Your task to perform on an android device: open app "Fetch Rewards" (install if not already installed) and go to login screen Image 0: 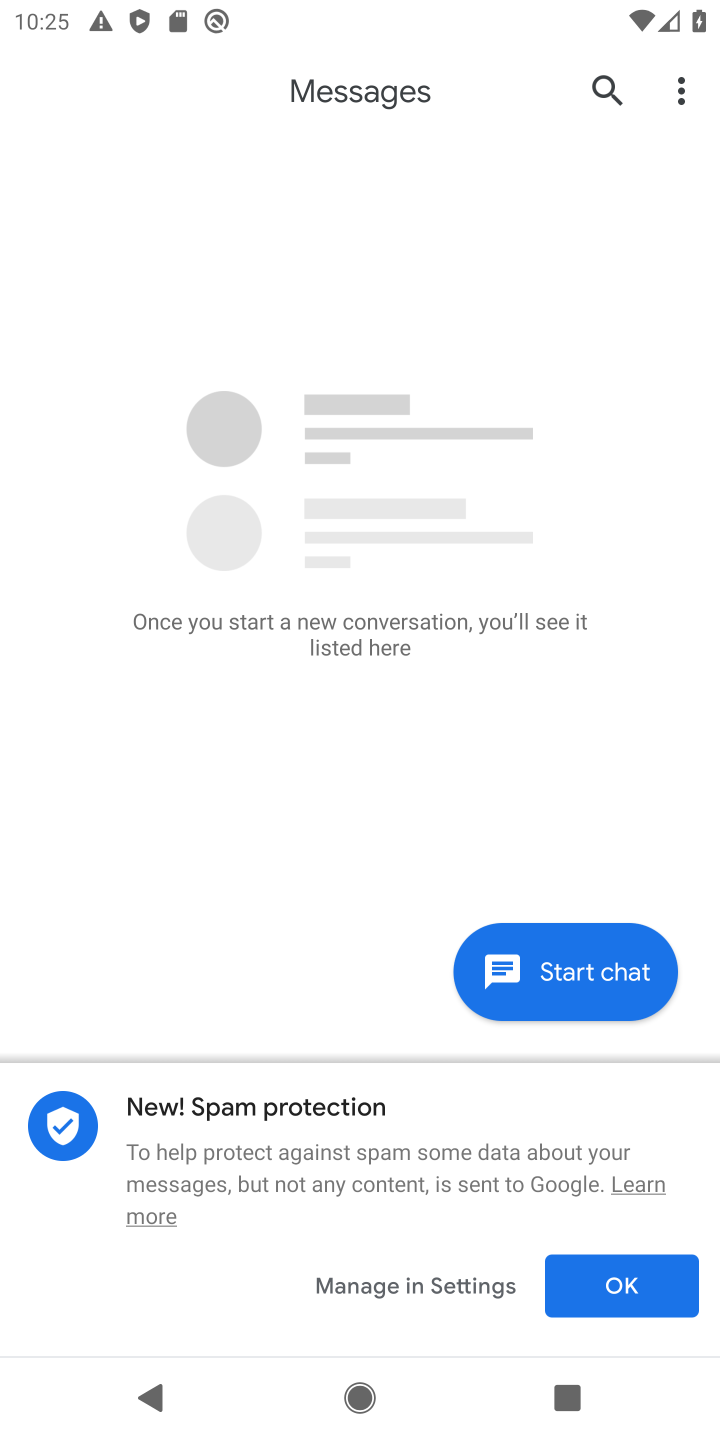
Step 0: press home button
Your task to perform on an android device: open app "Fetch Rewards" (install if not already installed) and go to login screen Image 1: 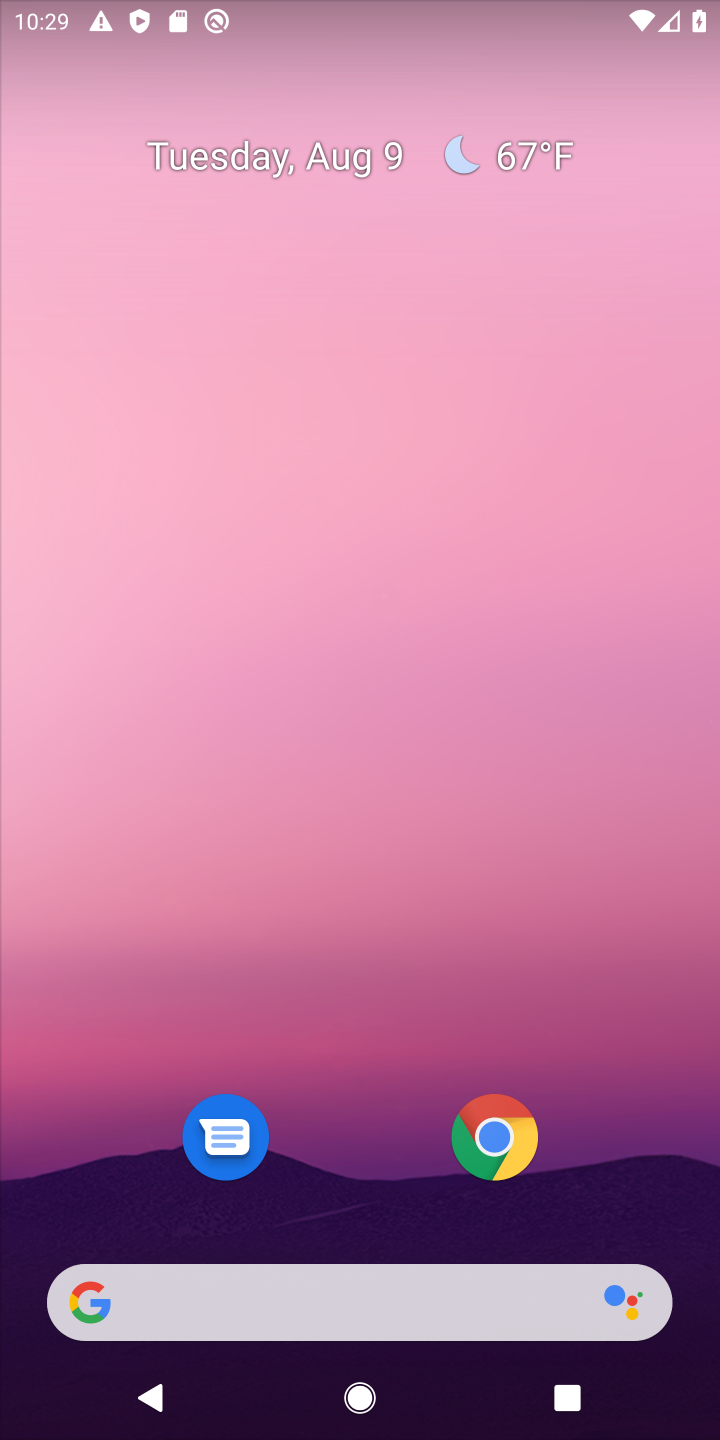
Step 1: drag from (672, 1194) to (584, 11)
Your task to perform on an android device: open app "Fetch Rewards" (install if not already installed) and go to login screen Image 2: 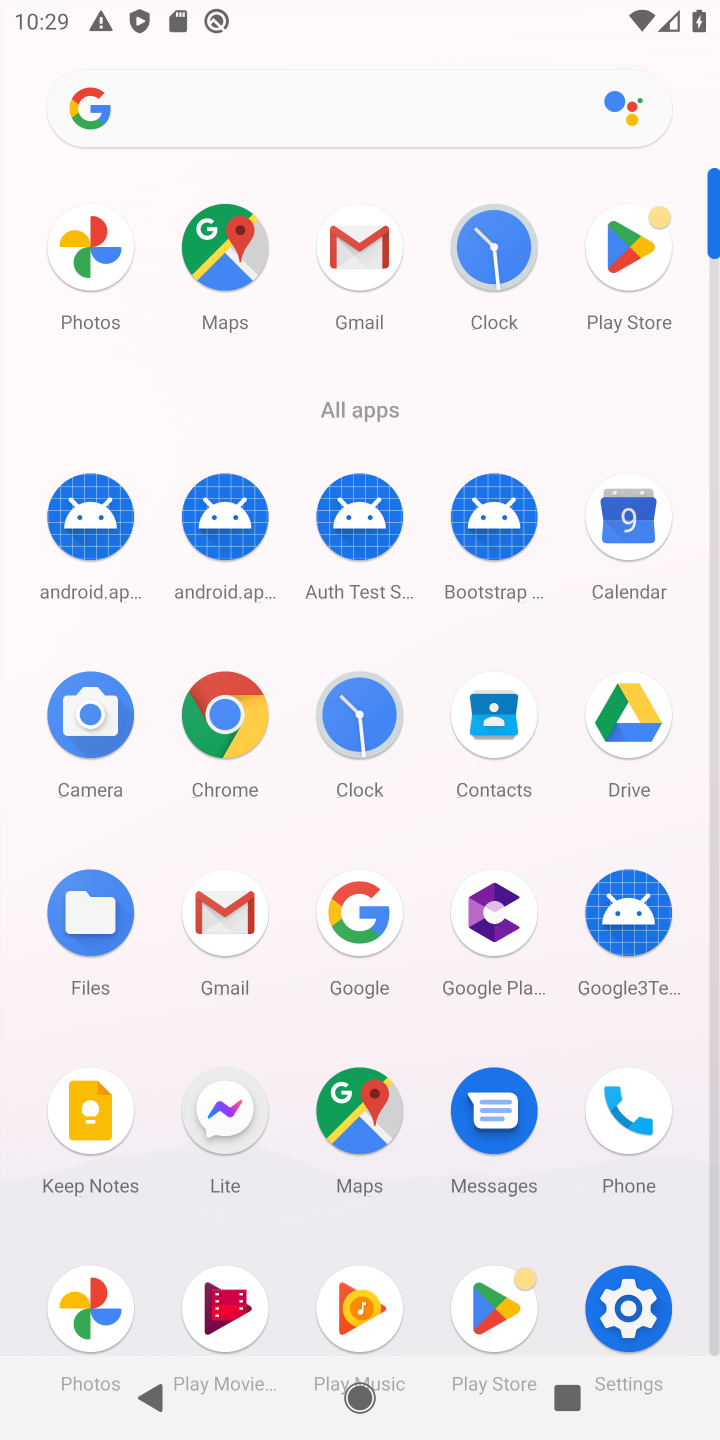
Step 2: click (618, 266)
Your task to perform on an android device: open app "Fetch Rewards" (install if not already installed) and go to login screen Image 3: 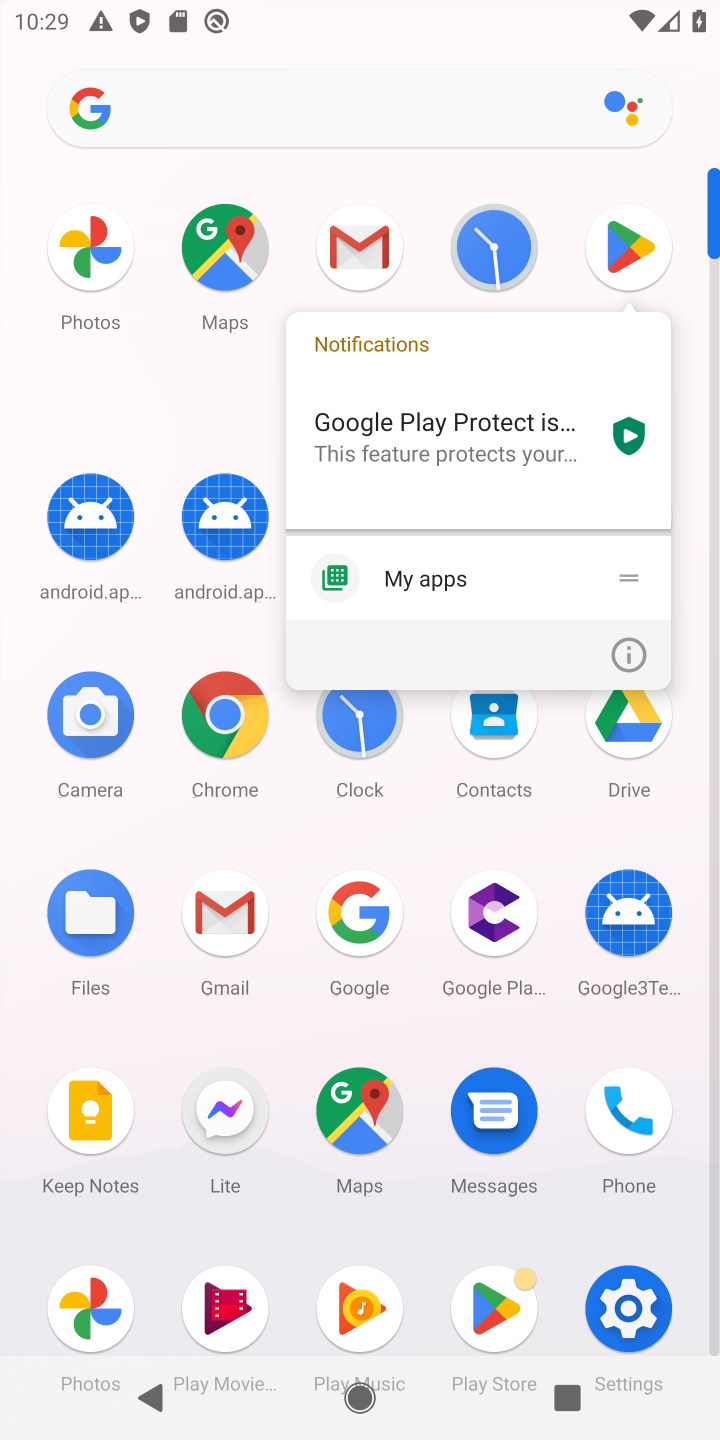
Step 3: click (618, 266)
Your task to perform on an android device: open app "Fetch Rewards" (install if not already installed) and go to login screen Image 4: 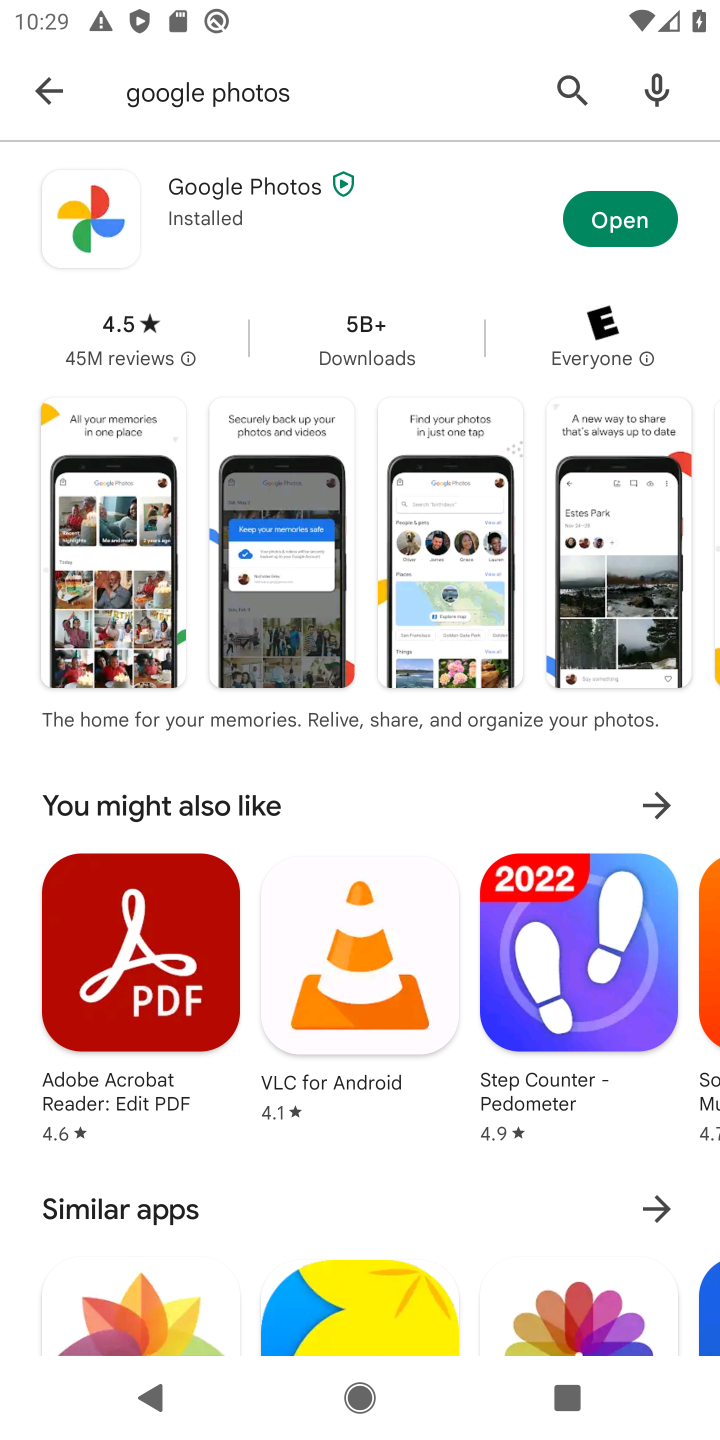
Step 4: press back button
Your task to perform on an android device: open app "Fetch Rewards" (install if not already installed) and go to login screen Image 5: 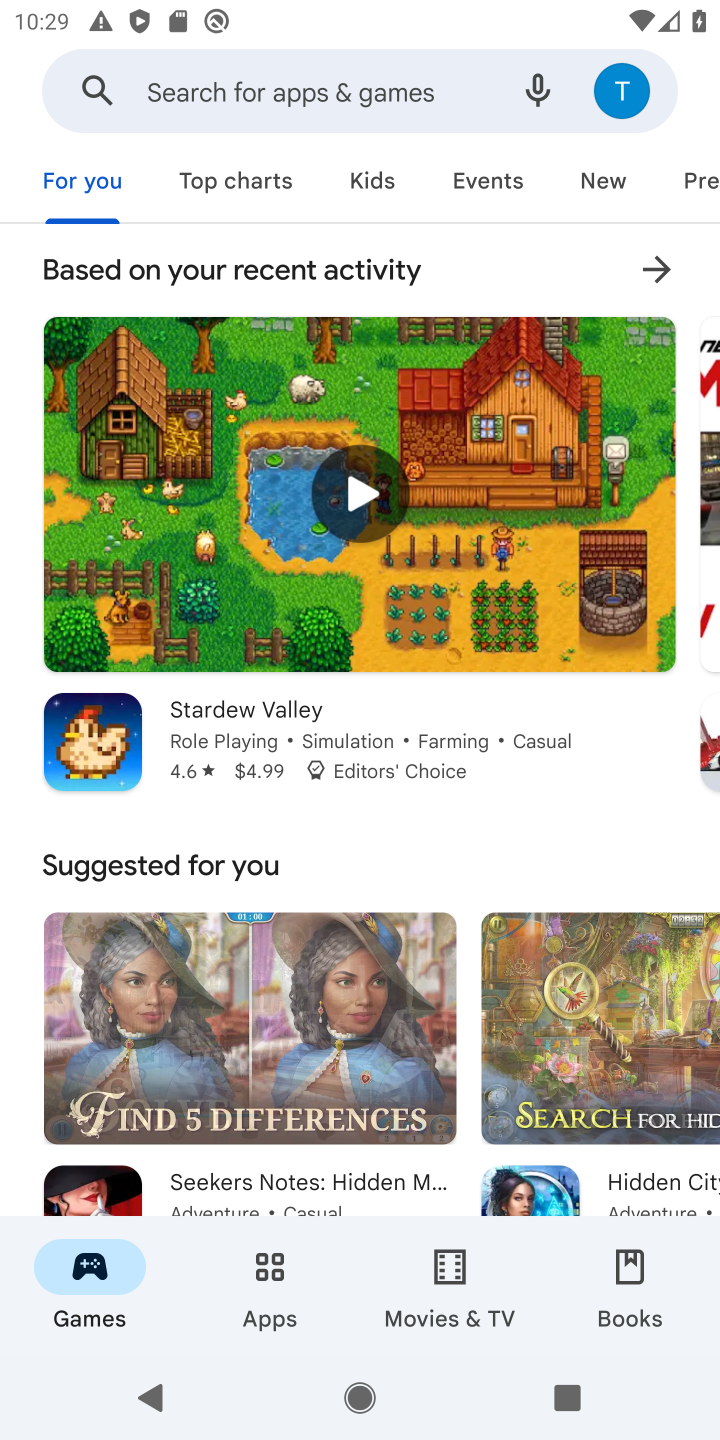
Step 5: click (272, 68)
Your task to perform on an android device: open app "Fetch Rewards" (install if not already installed) and go to login screen Image 6: 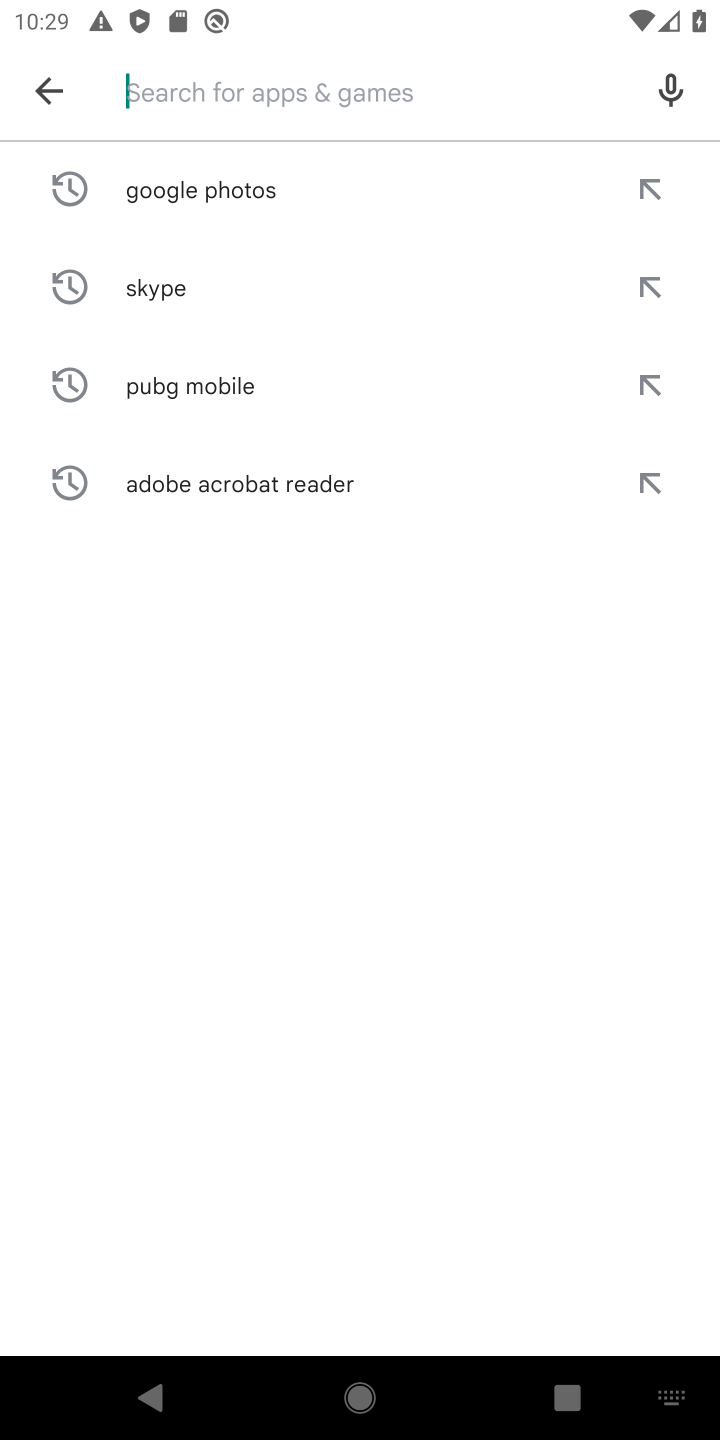
Step 6: type "Fetch Rewards"
Your task to perform on an android device: open app "Fetch Rewards" (install if not already installed) and go to login screen Image 7: 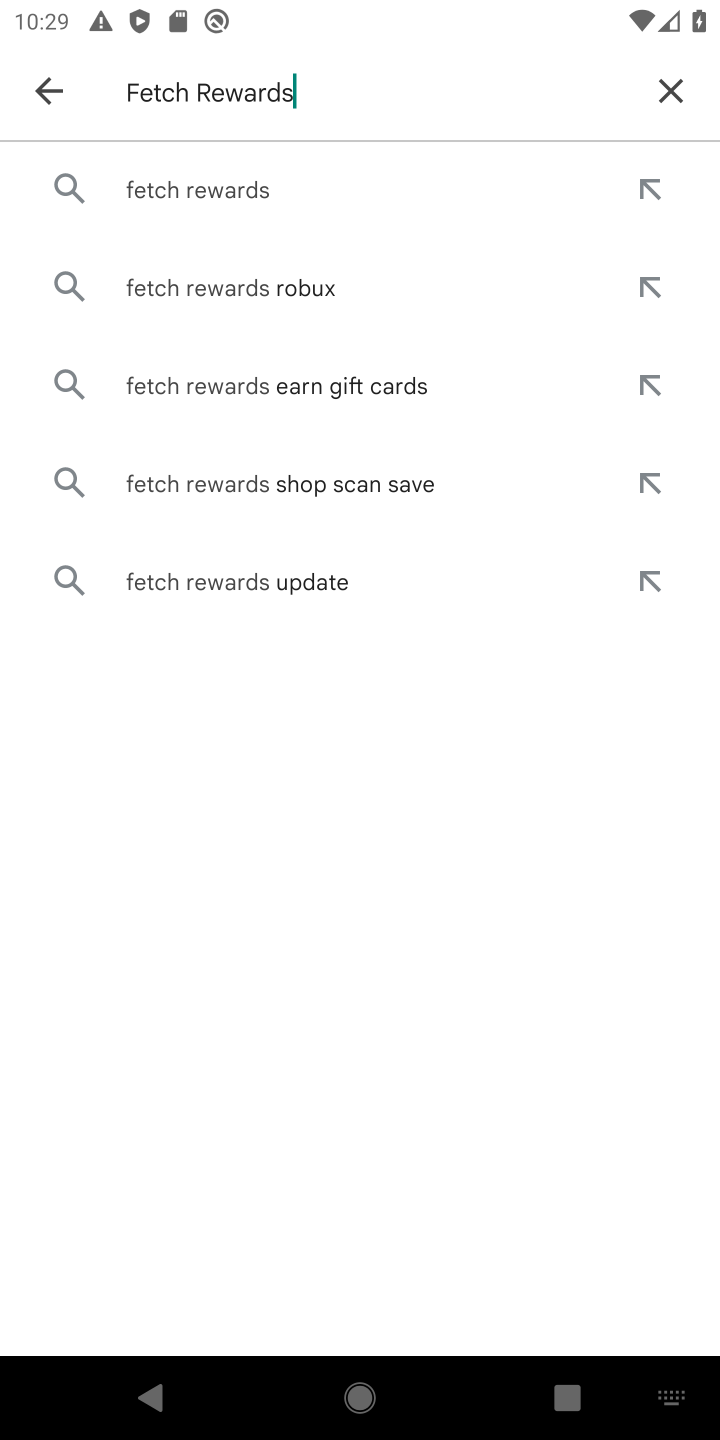
Step 7: click (245, 202)
Your task to perform on an android device: open app "Fetch Rewards" (install if not already installed) and go to login screen Image 8: 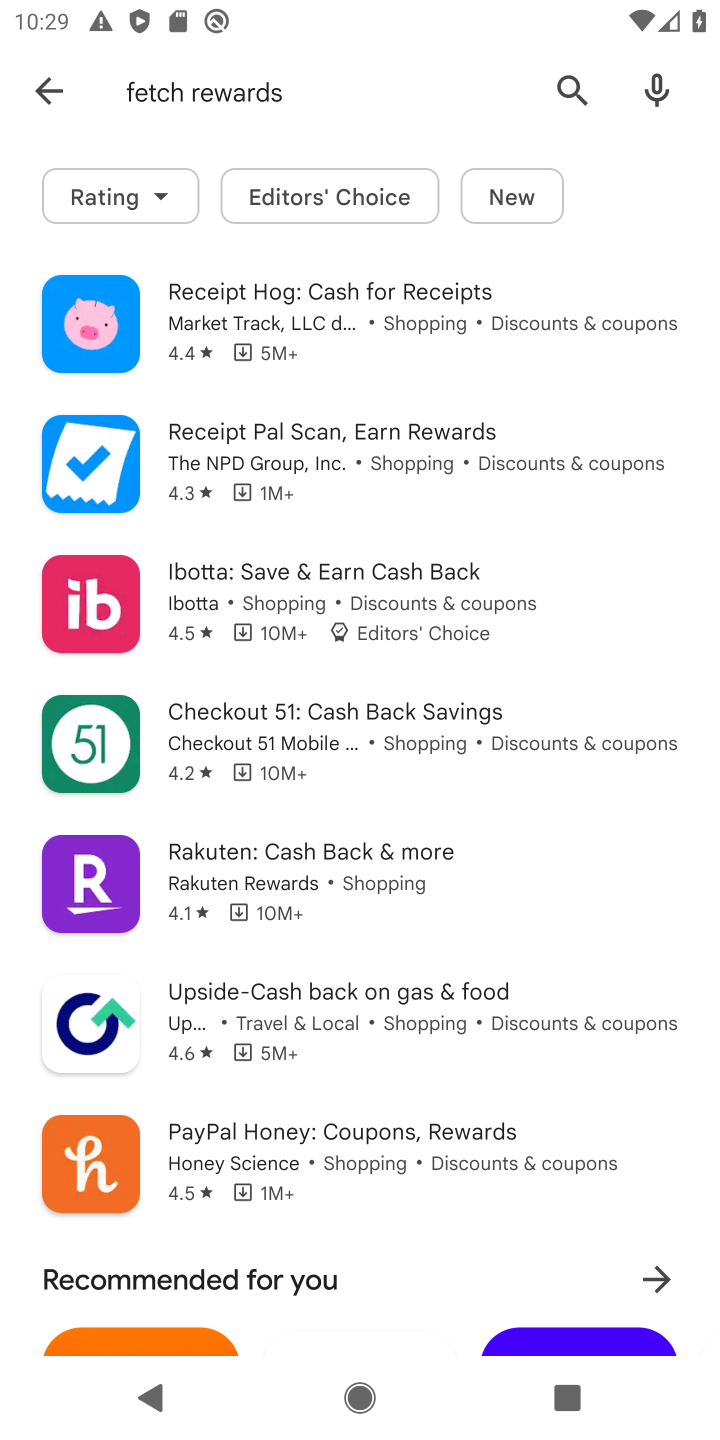
Step 8: task complete